Your task to perform on an android device: Open Wikipedia Image 0: 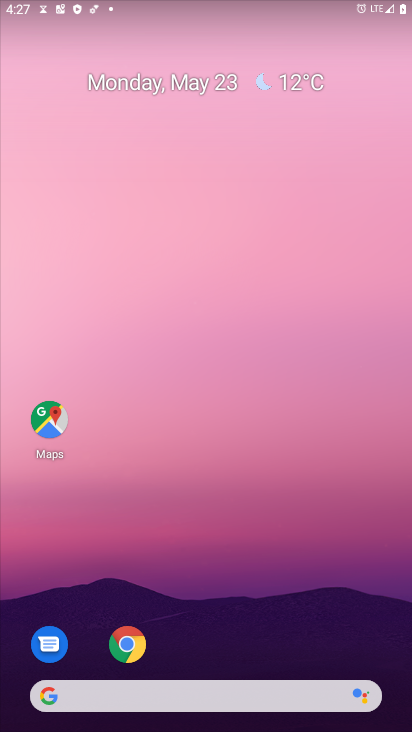
Step 0: drag from (214, 605) to (191, 226)
Your task to perform on an android device: Open Wikipedia Image 1: 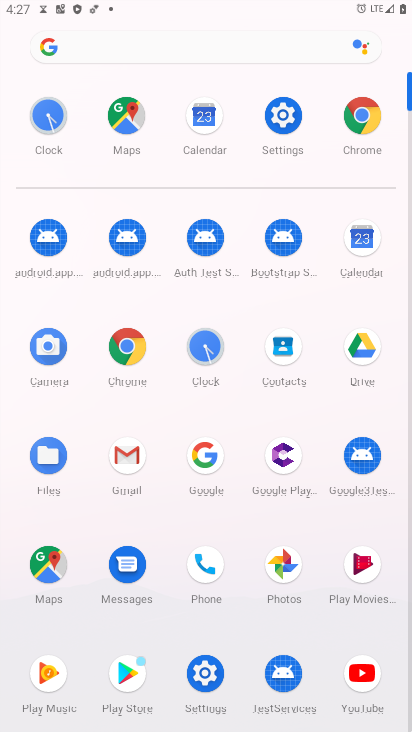
Step 1: click (366, 120)
Your task to perform on an android device: Open Wikipedia Image 2: 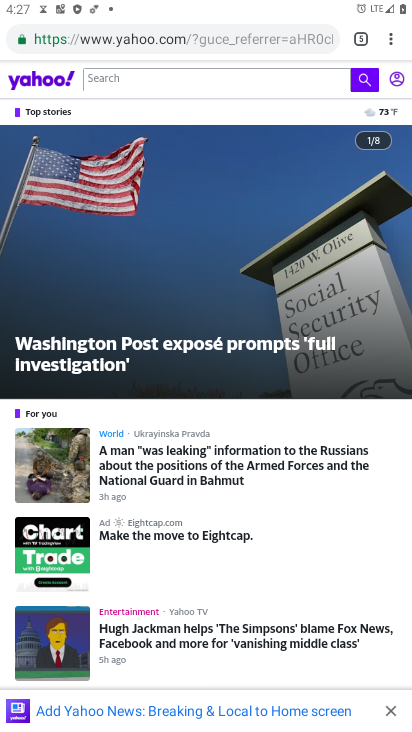
Step 2: click (206, 39)
Your task to perform on an android device: Open Wikipedia Image 3: 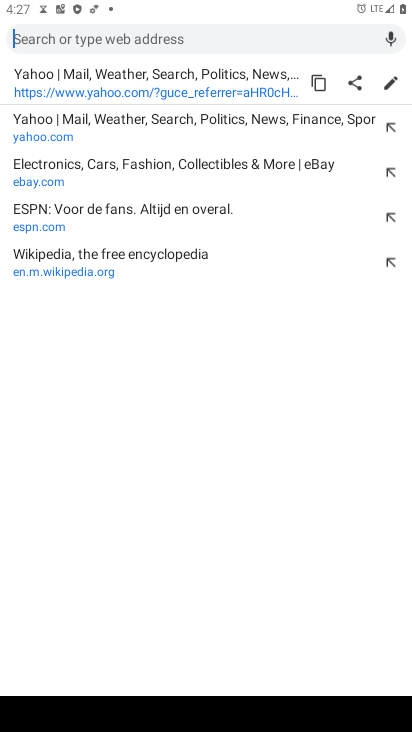
Step 3: click (154, 257)
Your task to perform on an android device: Open Wikipedia Image 4: 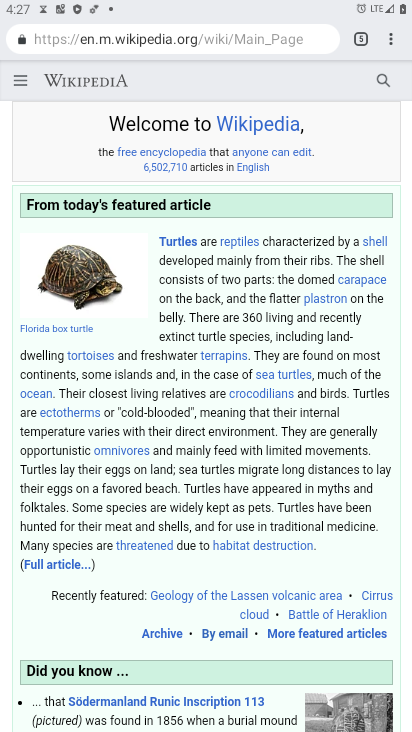
Step 4: task complete